Your task to perform on an android device: Go to Google maps Image 0: 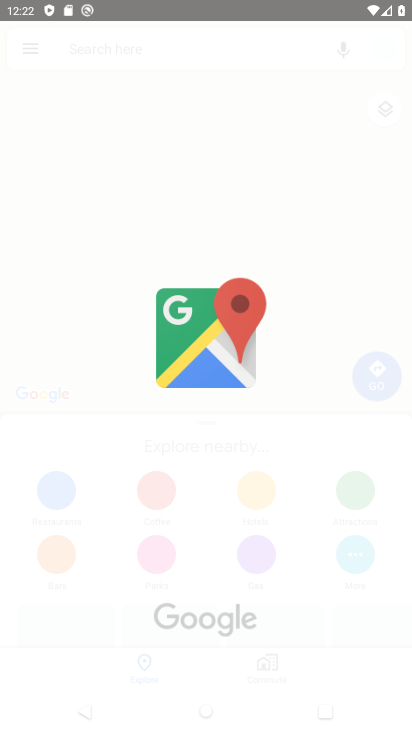
Step 0: click (47, 376)
Your task to perform on an android device: Go to Google maps Image 1: 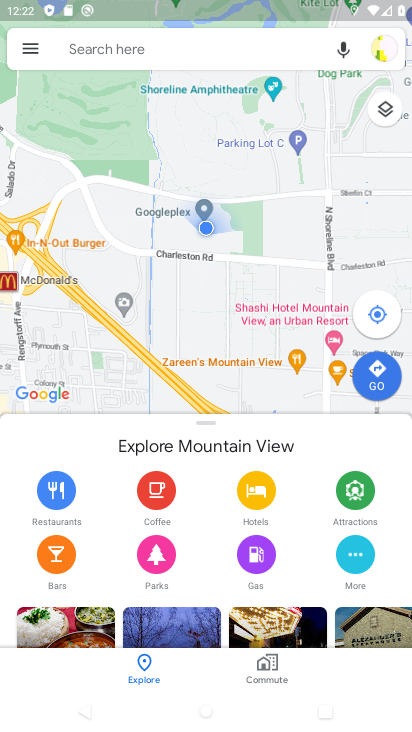
Step 1: task complete